Your task to perform on an android device: allow cookies in the chrome app Image 0: 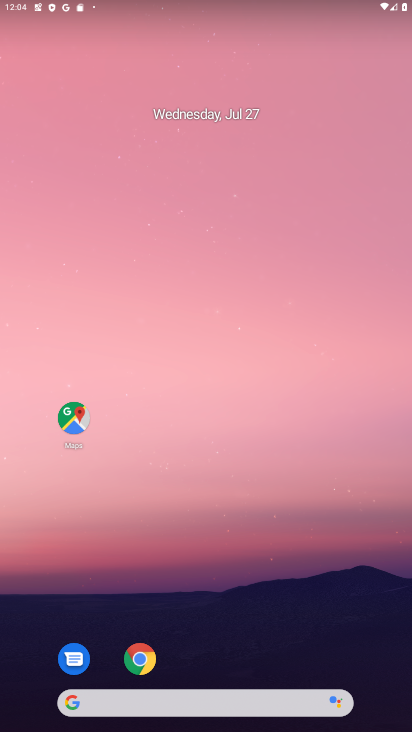
Step 0: press home button
Your task to perform on an android device: allow cookies in the chrome app Image 1: 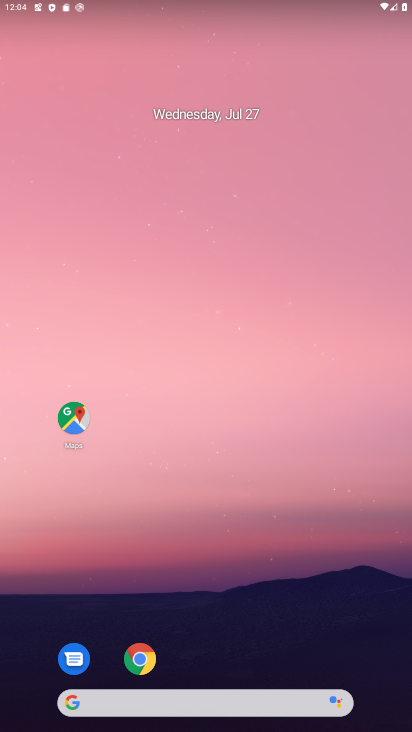
Step 1: drag from (207, 676) to (272, 111)
Your task to perform on an android device: allow cookies in the chrome app Image 2: 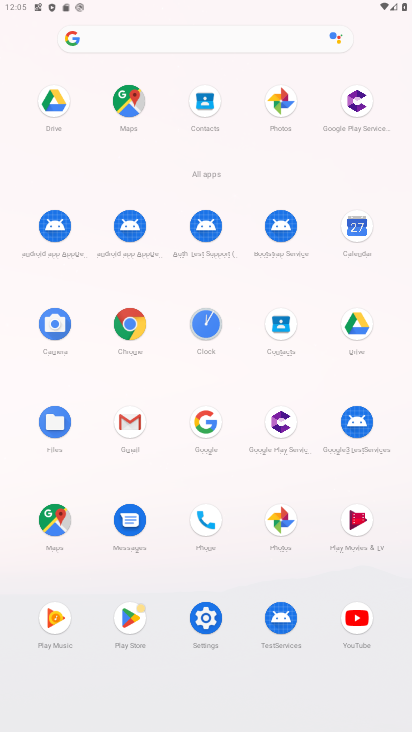
Step 2: click (123, 317)
Your task to perform on an android device: allow cookies in the chrome app Image 3: 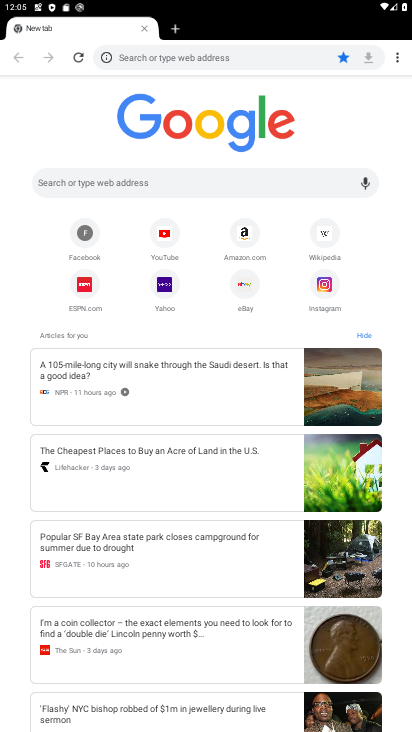
Step 3: click (396, 50)
Your task to perform on an android device: allow cookies in the chrome app Image 4: 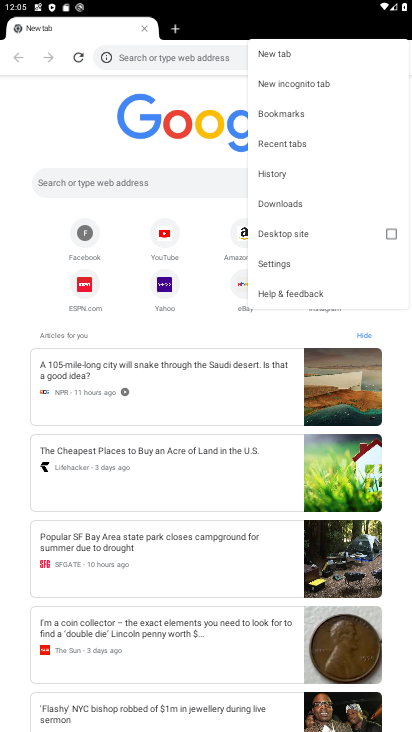
Step 4: click (294, 258)
Your task to perform on an android device: allow cookies in the chrome app Image 5: 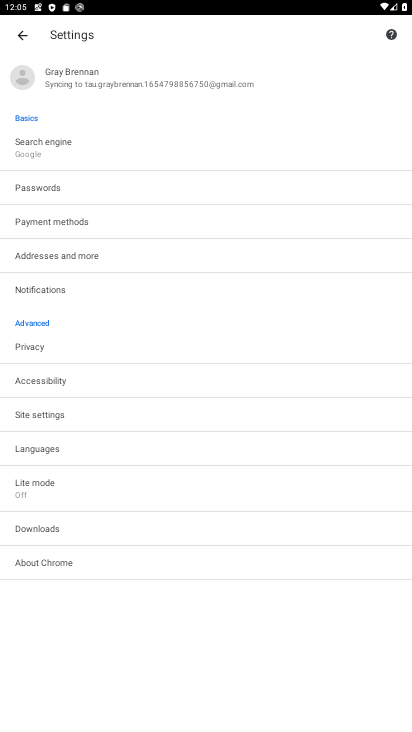
Step 5: click (70, 409)
Your task to perform on an android device: allow cookies in the chrome app Image 6: 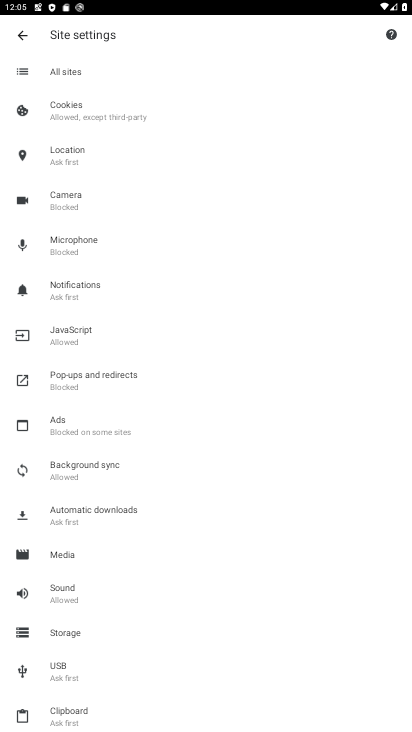
Step 6: click (91, 106)
Your task to perform on an android device: allow cookies in the chrome app Image 7: 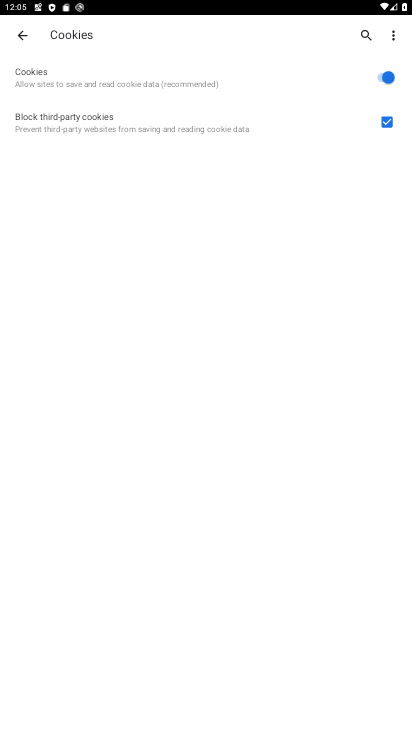
Step 7: task complete